Your task to perform on an android device: turn on the 12-hour format for clock Image 0: 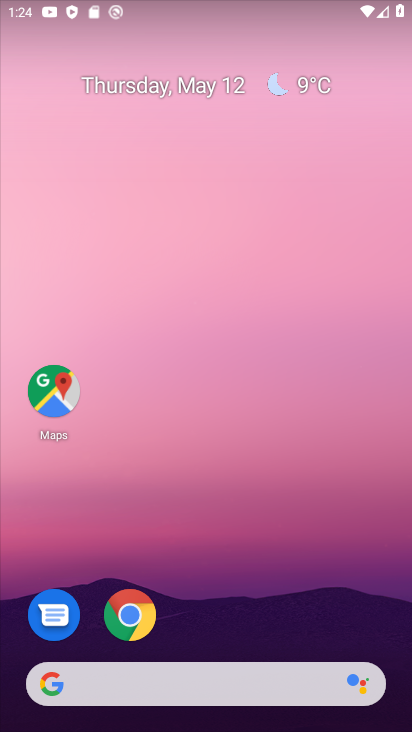
Step 0: drag from (222, 684) to (359, 166)
Your task to perform on an android device: turn on the 12-hour format for clock Image 1: 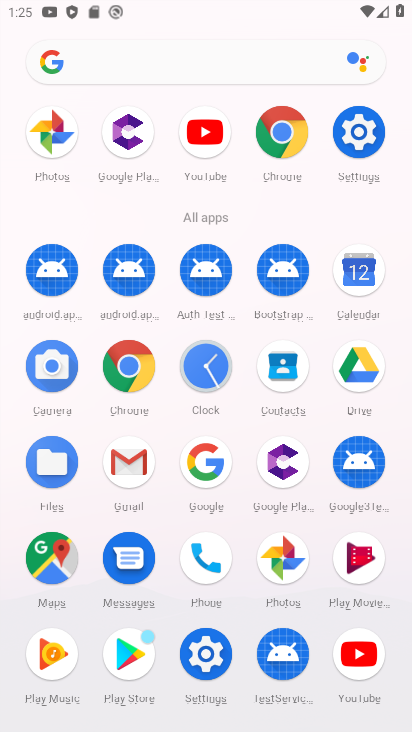
Step 1: click (344, 135)
Your task to perform on an android device: turn on the 12-hour format for clock Image 2: 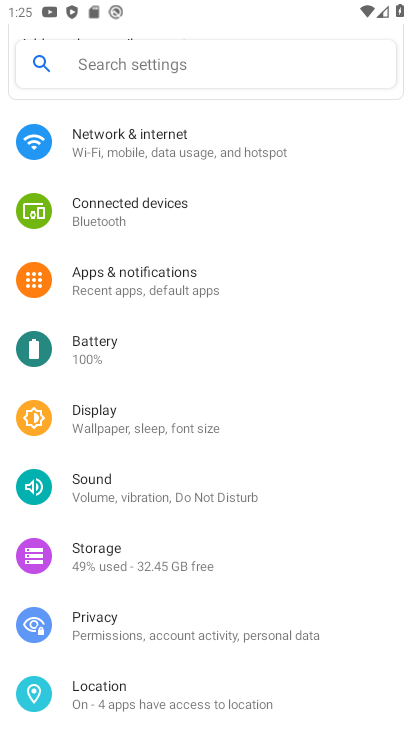
Step 2: drag from (120, 461) to (156, 0)
Your task to perform on an android device: turn on the 12-hour format for clock Image 3: 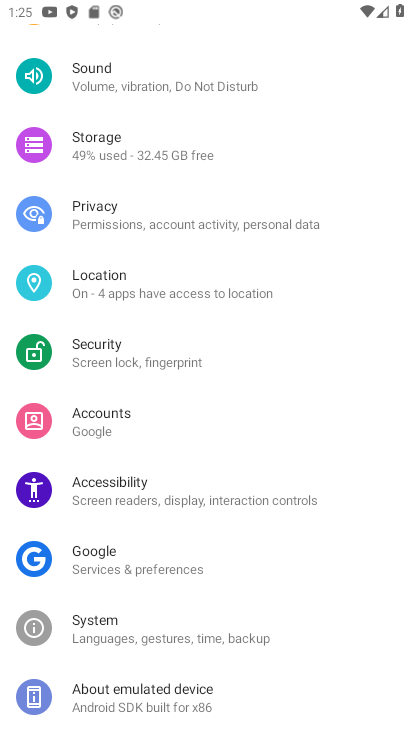
Step 3: click (109, 635)
Your task to perform on an android device: turn on the 12-hour format for clock Image 4: 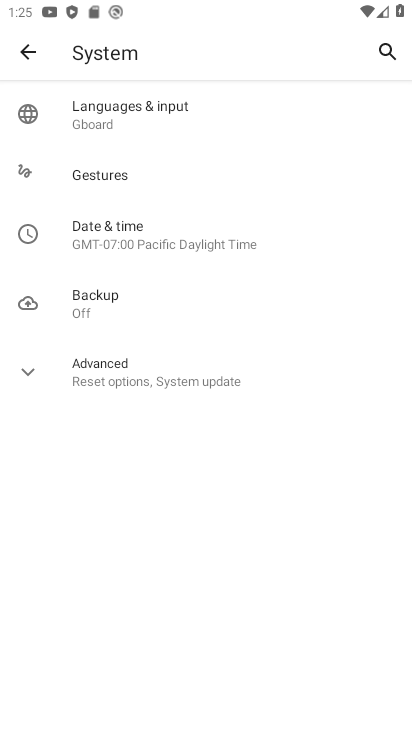
Step 4: click (88, 234)
Your task to perform on an android device: turn on the 12-hour format for clock Image 5: 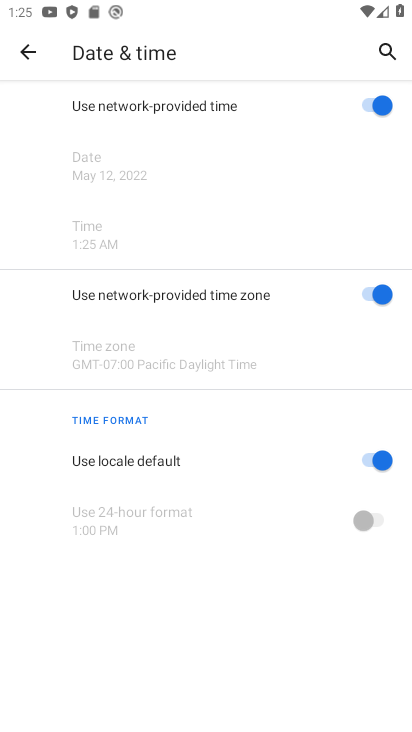
Step 5: task complete